Your task to perform on an android device: Open Android settings Image 0: 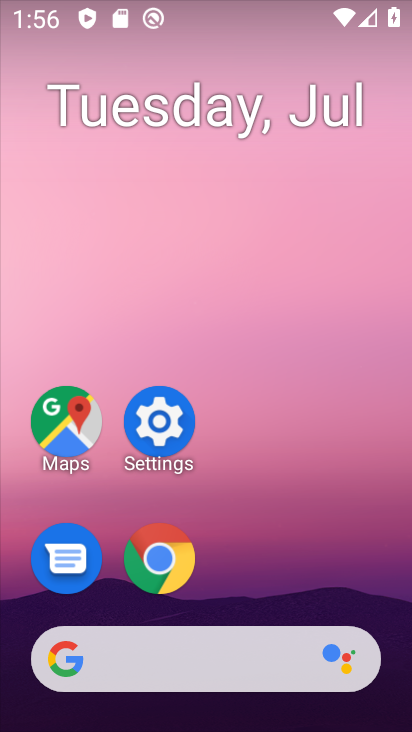
Step 0: click (156, 415)
Your task to perform on an android device: Open Android settings Image 1: 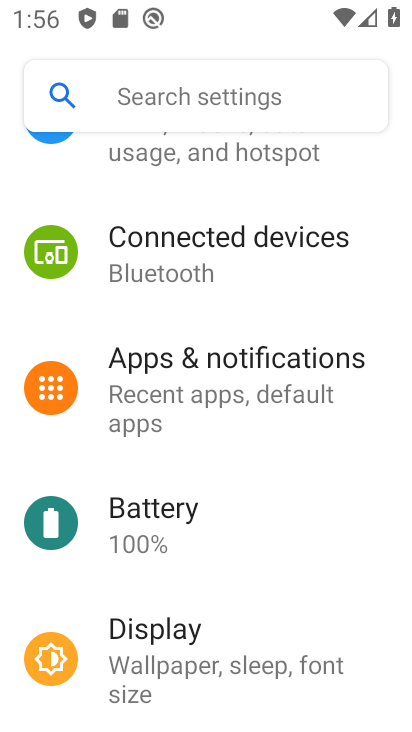
Step 1: drag from (259, 656) to (310, 184)
Your task to perform on an android device: Open Android settings Image 2: 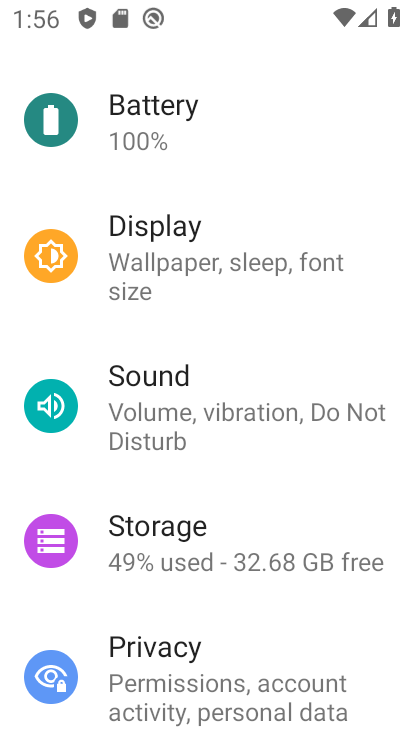
Step 2: click (178, 244)
Your task to perform on an android device: Open Android settings Image 3: 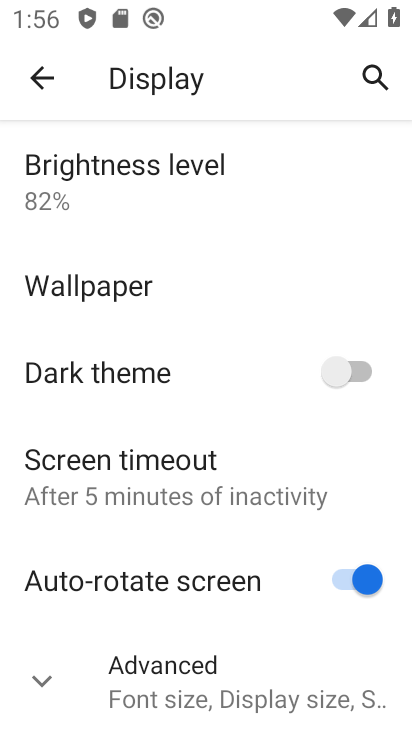
Step 3: drag from (259, 240) to (252, 537)
Your task to perform on an android device: Open Android settings Image 4: 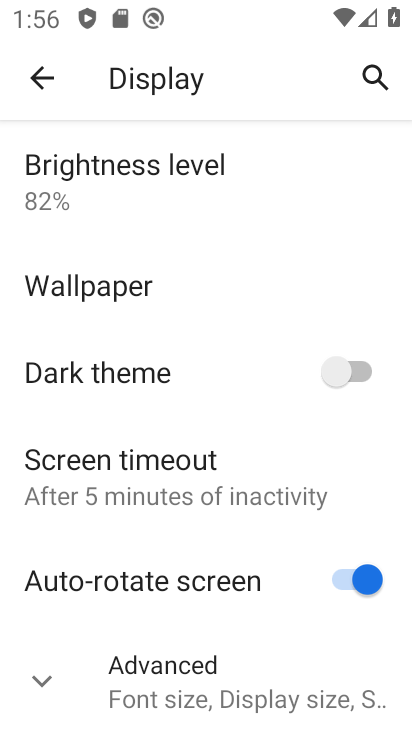
Step 4: drag from (209, 541) to (205, 225)
Your task to perform on an android device: Open Android settings Image 5: 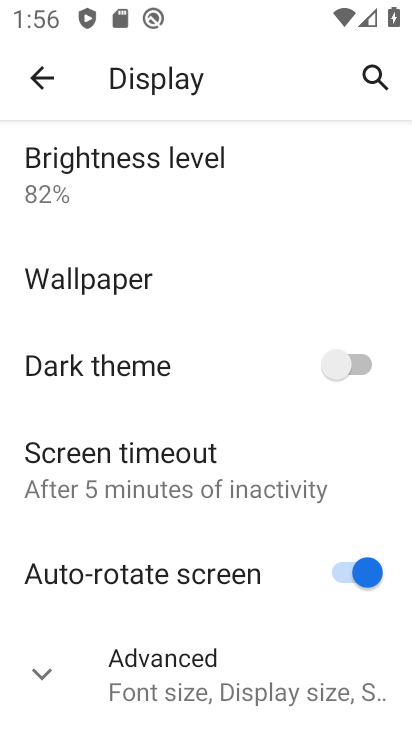
Step 5: drag from (238, 642) to (213, 217)
Your task to perform on an android device: Open Android settings Image 6: 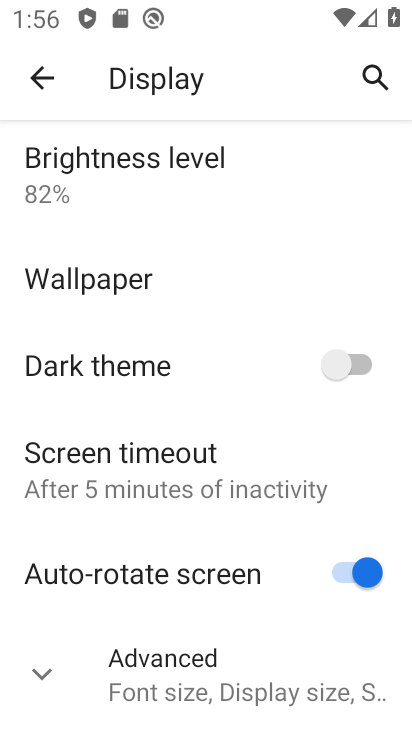
Step 6: click (64, 669)
Your task to perform on an android device: Open Android settings Image 7: 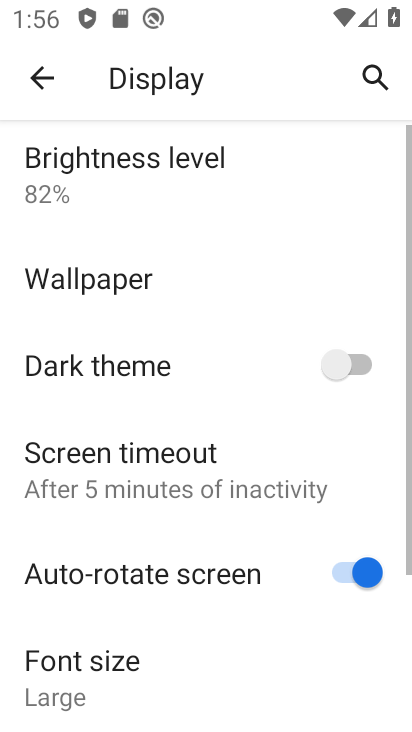
Step 7: drag from (201, 671) to (208, 307)
Your task to perform on an android device: Open Android settings Image 8: 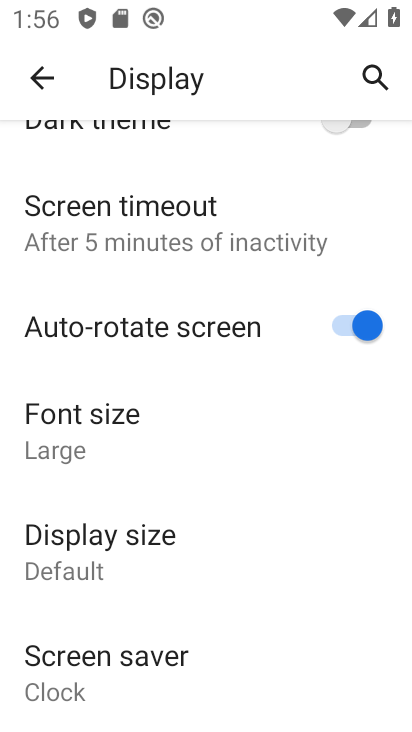
Step 8: click (60, 555)
Your task to perform on an android device: Open Android settings Image 9: 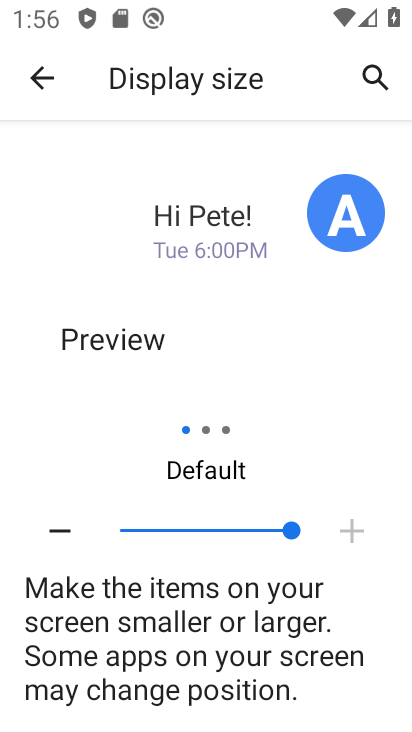
Step 9: click (66, 529)
Your task to perform on an android device: Open Android settings Image 10: 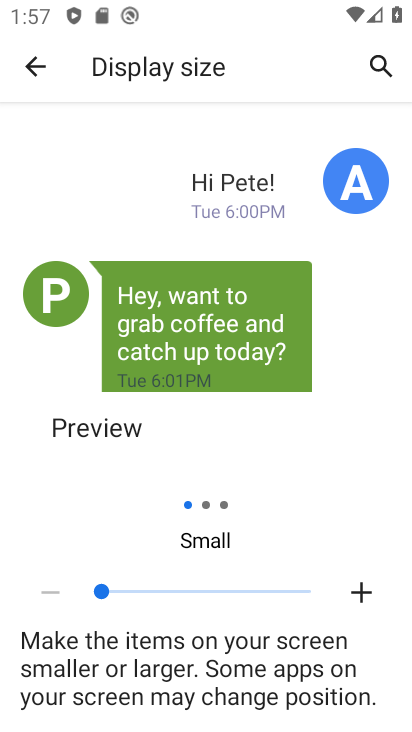
Step 10: click (151, 593)
Your task to perform on an android device: Open Android settings Image 11: 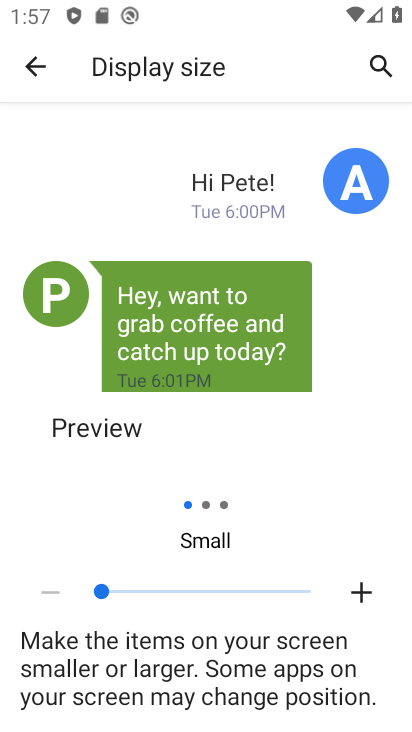
Step 11: click (204, 503)
Your task to perform on an android device: Open Android settings Image 12: 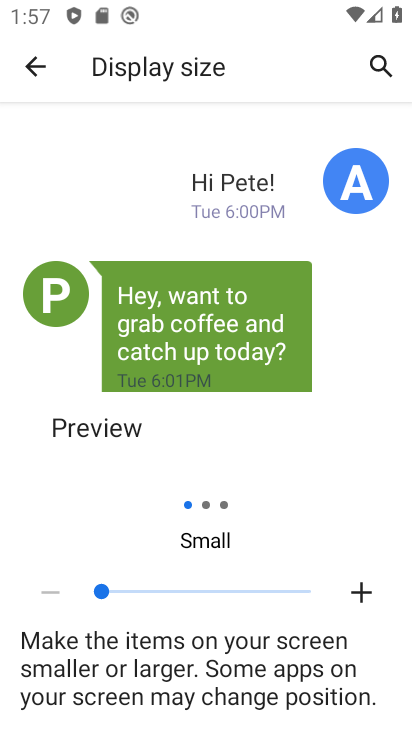
Step 12: click (204, 503)
Your task to perform on an android device: Open Android settings Image 13: 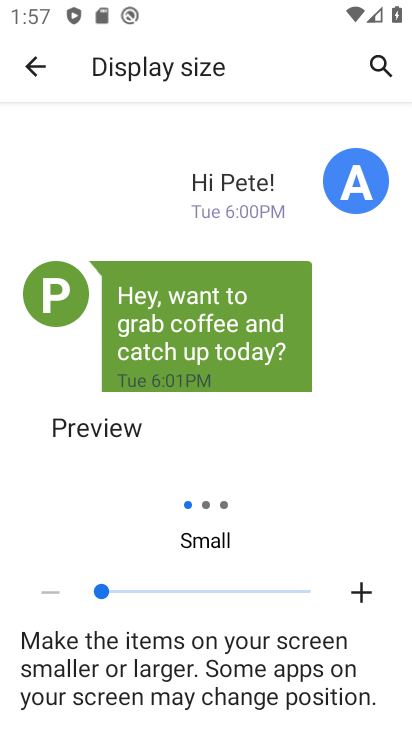
Step 13: click (354, 584)
Your task to perform on an android device: Open Android settings Image 14: 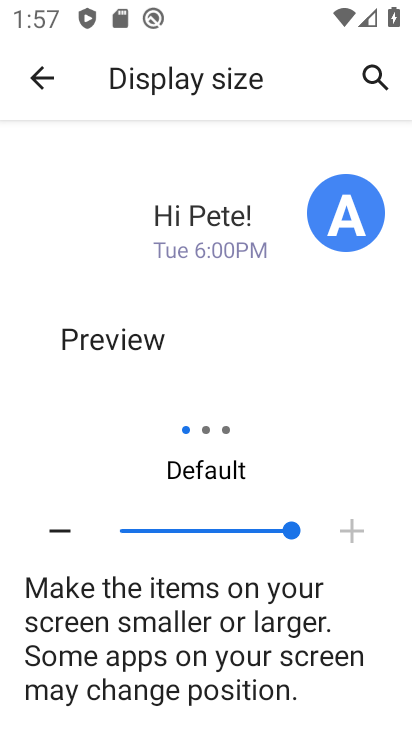
Step 14: click (189, 528)
Your task to perform on an android device: Open Android settings Image 15: 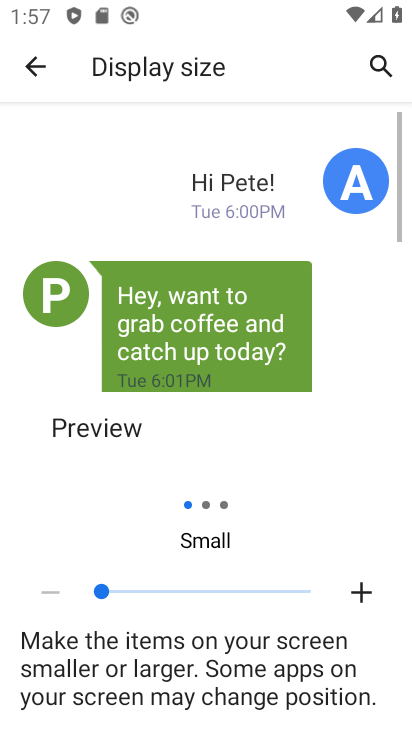
Step 15: click (274, 511)
Your task to perform on an android device: Open Android settings Image 16: 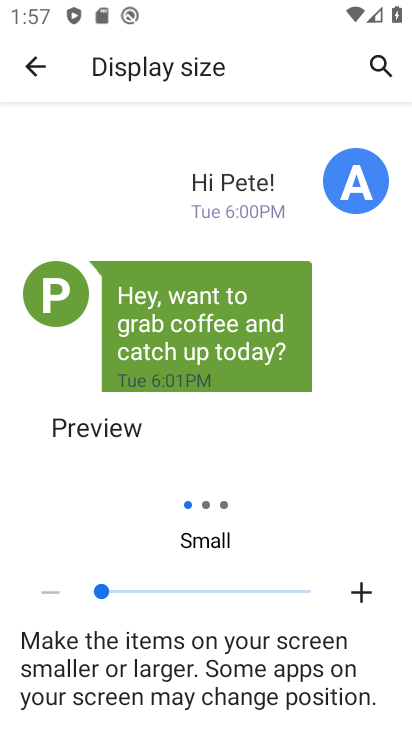
Step 16: click (32, 73)
Your task to perform on an android device: Open Android settings Image 17: 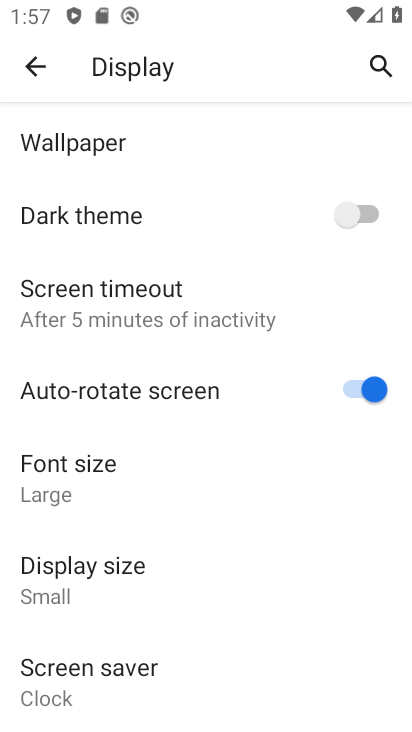
Step 17: task complete